Your task to perform on an android device: uninstall "Clock" Image 0: 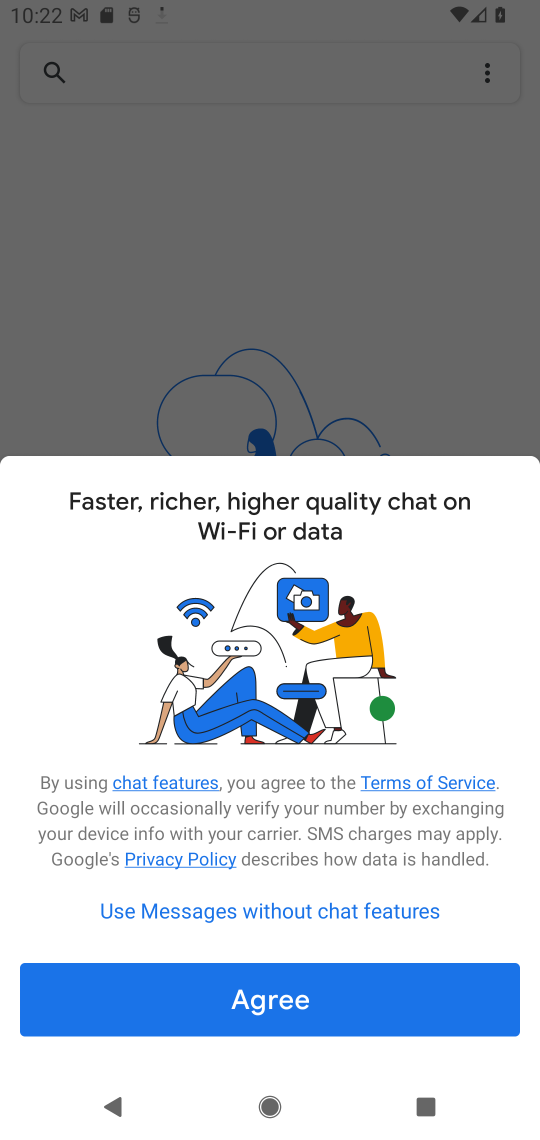
Step 0: press home button
Your task to perform on an android device: uninstall "Clock" Image 1: 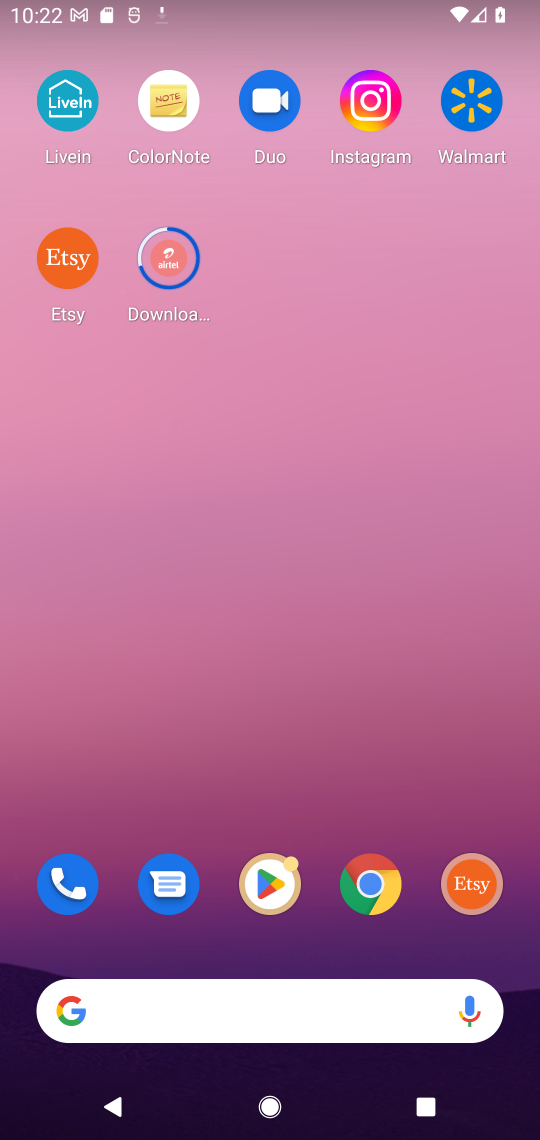
Step 1: click (273, 890)
Your task to perform on an android device: uninstall "Clock" Image 2: 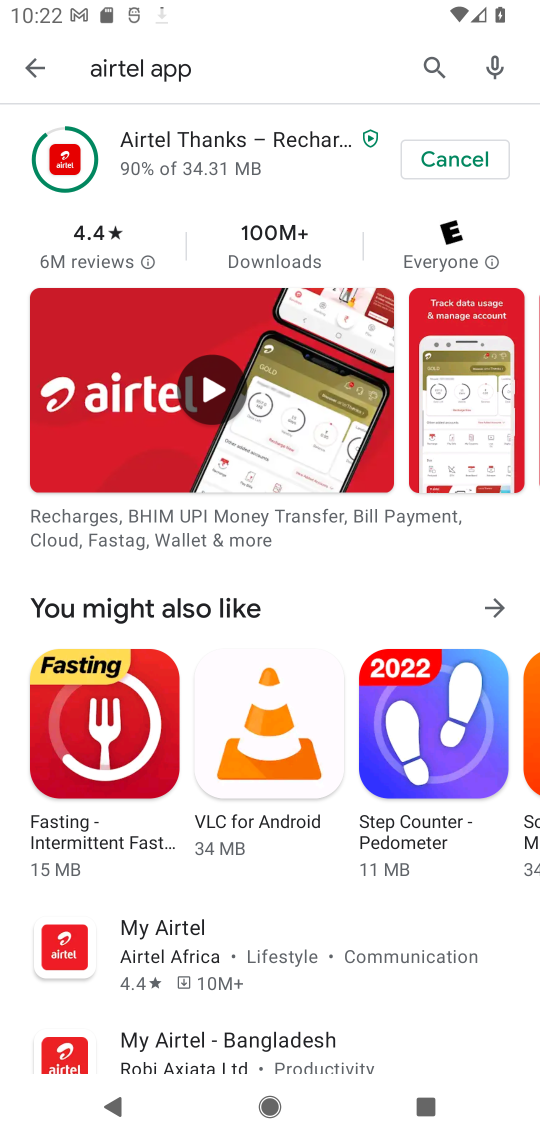
Step 2: click (436, 68)
Your task to perform on an android device: uninstall "Clock" Image 3: 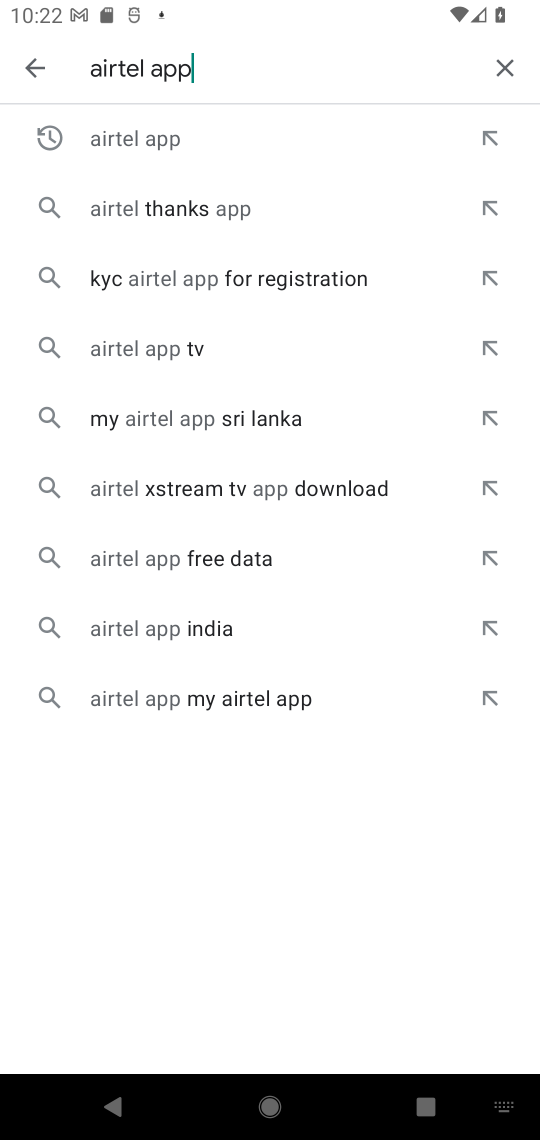
Step 3: click (499, 68)
Your task to perform on an android device: uninstall "Clock" Image 4: 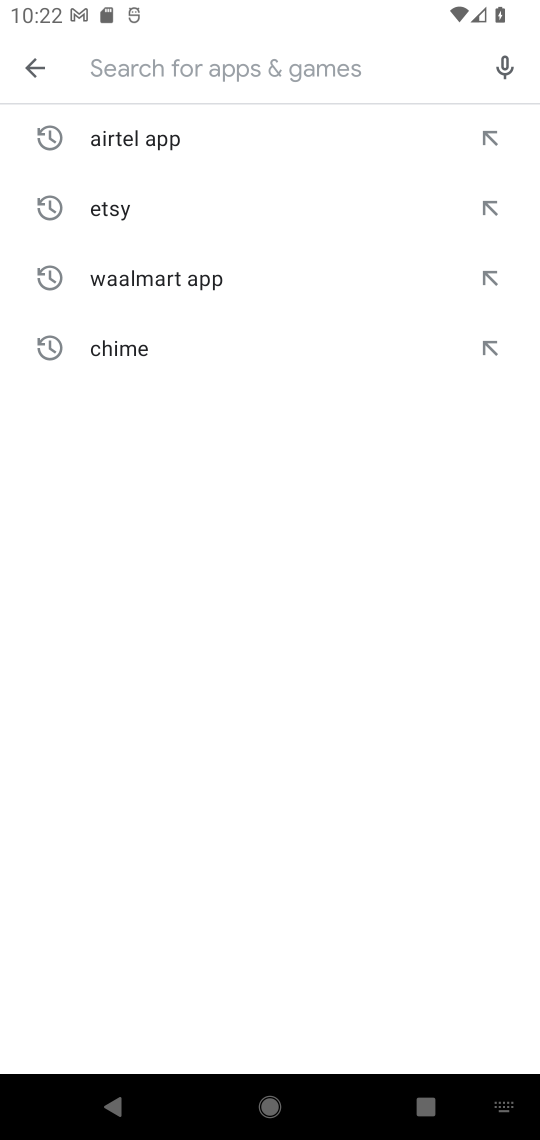
Step 4: type "clock"
Your task to perform on an android device: uninstall "Clock" Image 5: 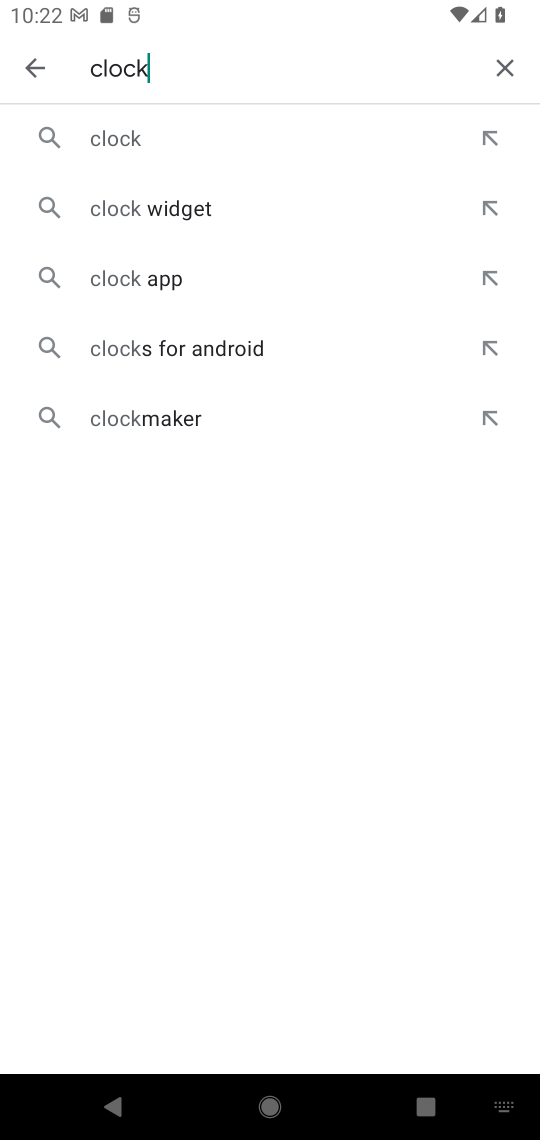
Step 5: click (131, 146)
Your task to perform on an android device: uninstall "Clock" Image 6: 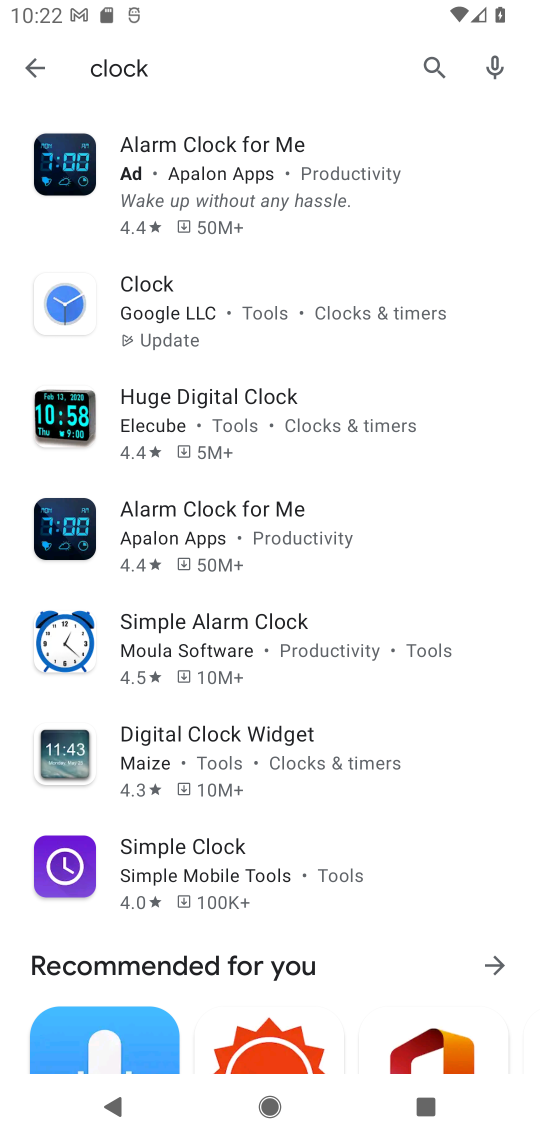
Step 6: click (376, 161)
Your task to perform on an android device: uninstall "Clock" Image 7: 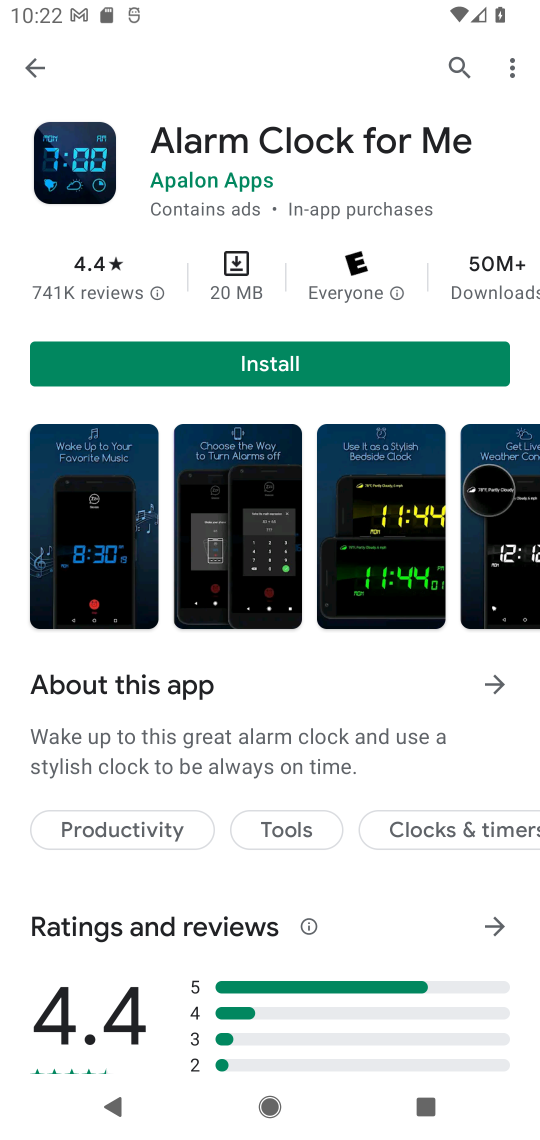
Step 7: click (462, 360)
Your task to perform on an android device: uninstall "Clock" Image 8: 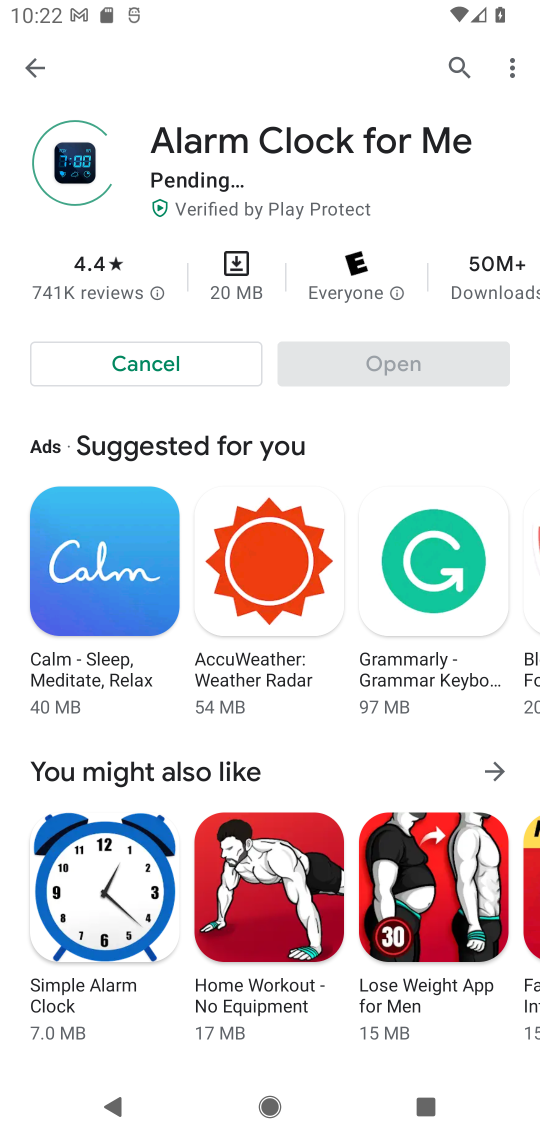
Step 8: task complete